Your task to perform on an android device: Open Youtube and go to "Your channel" Image 0: 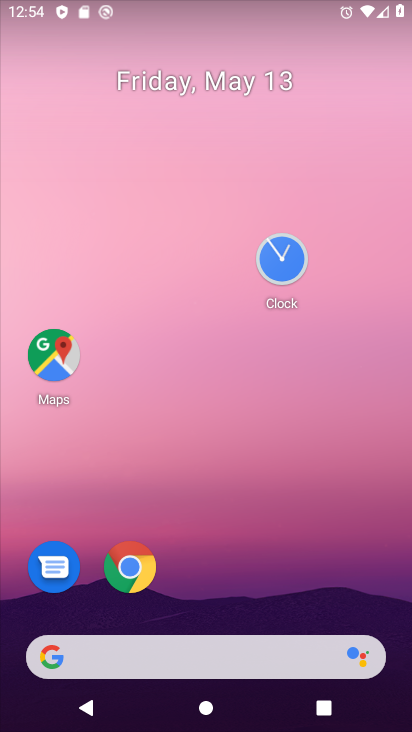
Step 0: drag from (285, 572) to (271, 100)
Your task to perform on an android device: Open Youtube and go to "Your channel" Image 1: 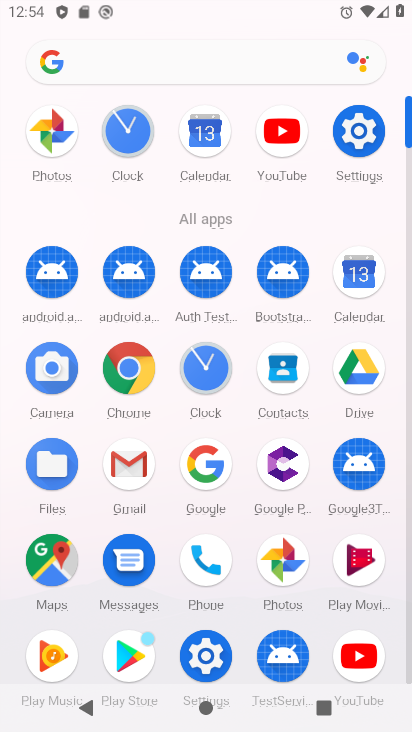
Step 1: click (286, 163)
Your task to perform on an android device: Open Youtube and go to "Your channel" Image 2: 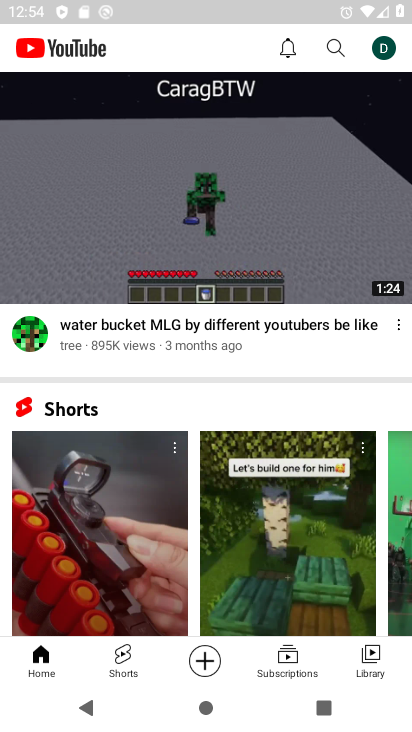
Step 2: click (379, 665)
Your task to perform on an android device: Open Youtube and go to "Your channel" Image 3: 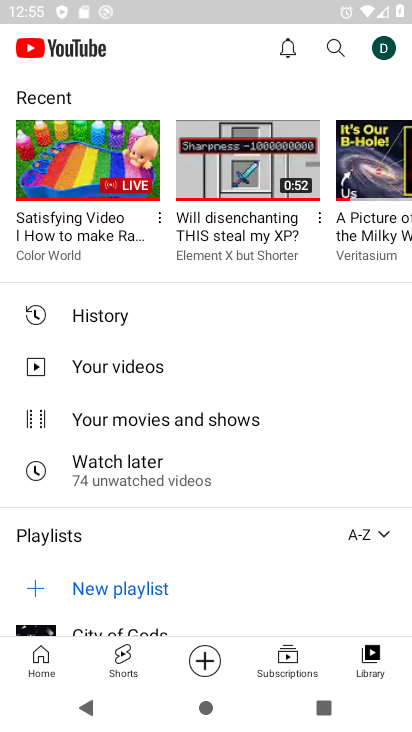
Step 3: click (379, 57)
Your task to perform on an android device: Open Youtube and go to "Your channel" Image 4: 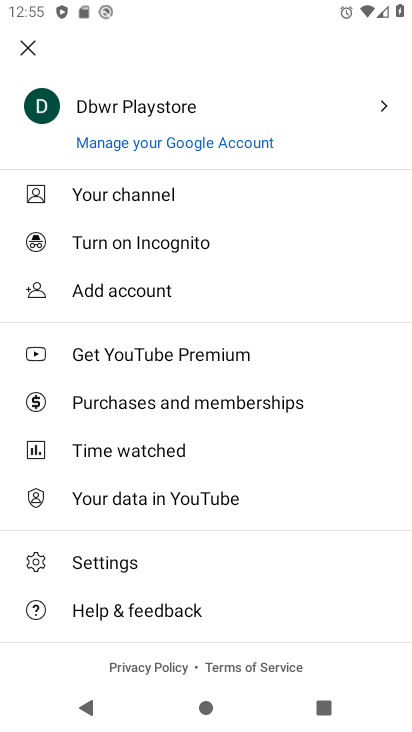
Step 4: click (164, 205)
Your task to perform on an android device: Open Youtube and go to "Your channel" Image 5: 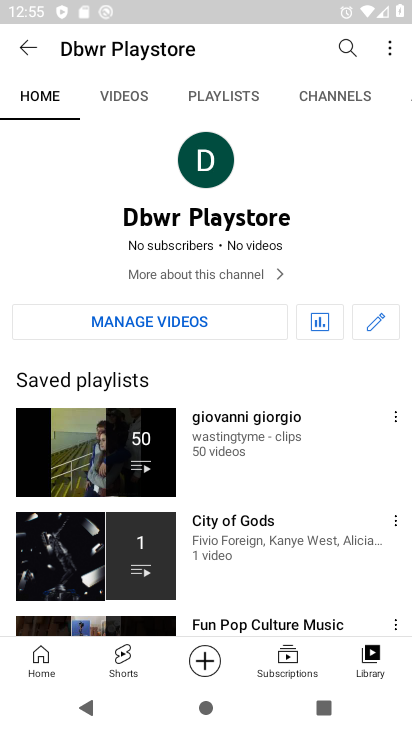
Step 5: task complete